Your task to perform on an android device: Open wifi settings Image 0: 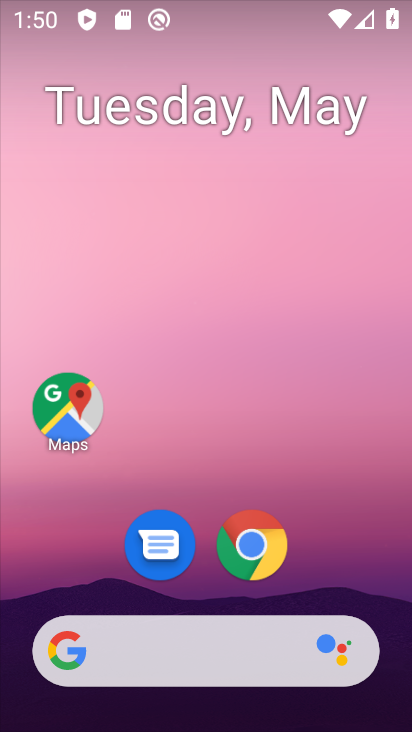
Step 0: drag from (321, 476) to (197, 19)
Your task to perform on an android device: Open wifi settings Image 1: 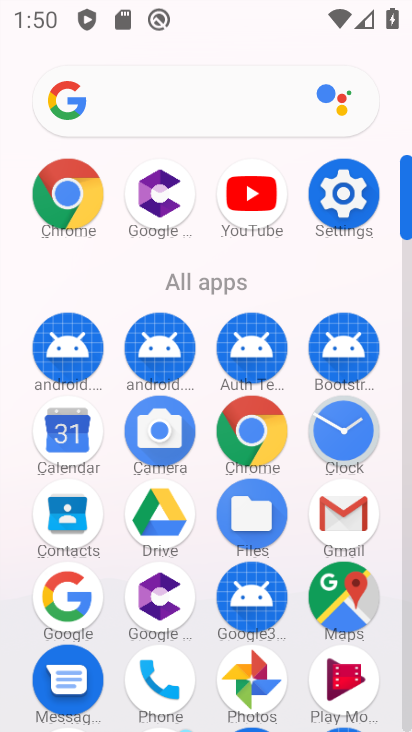
Step 1: click (23, 257)
Your task to perform on an android device: Open wifi settings Image 2: 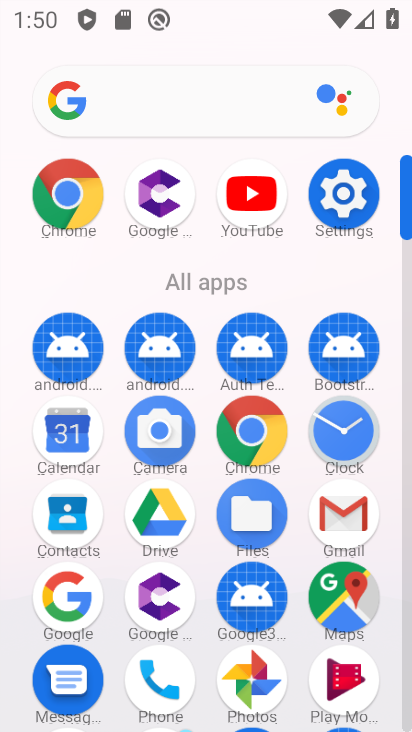
Step 2: click (342, 189)
Your task to perform on an android device: Open wifi settings Image 3: 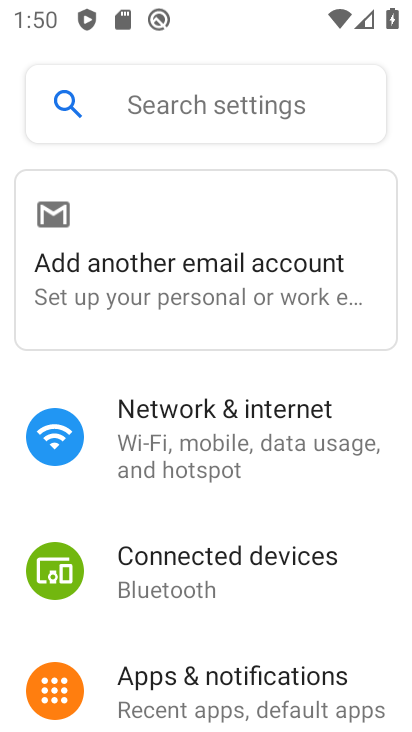
Step 3: click (206, 447)
Your task to perform on an android device: Open wifi settings Image 4: 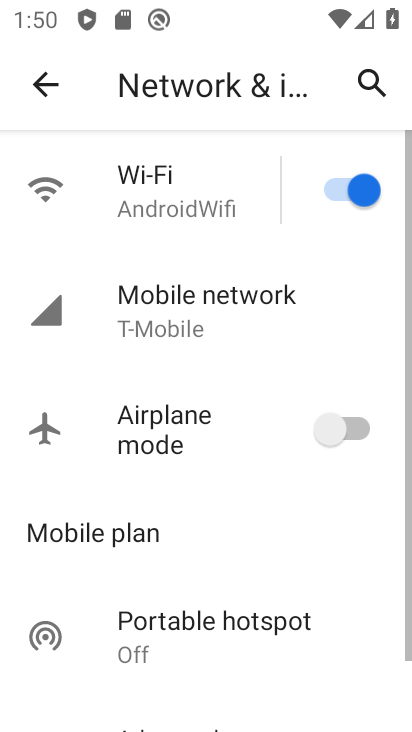
Step 4: click (142, 203)
Your task to perform on an android device: Open wifi settings Image 5: 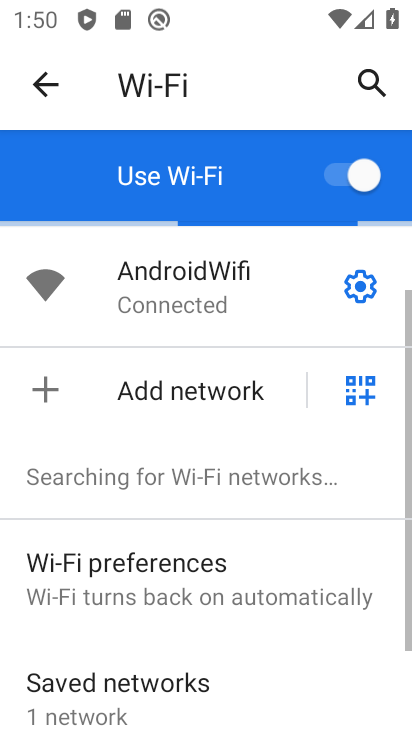
Step 5: task complete